Your task to perform on an android device: toggle show notifications on the lock screen Image 0: 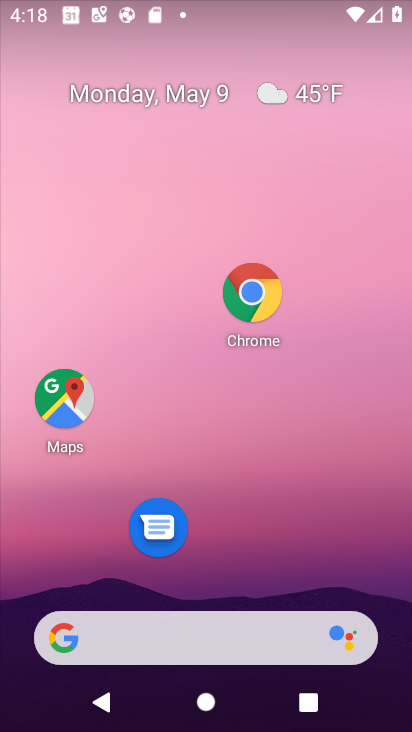
Step 0: click (297, 151)
Your task to perform on an android device: toggle show notifications on the lock screen Image 1: 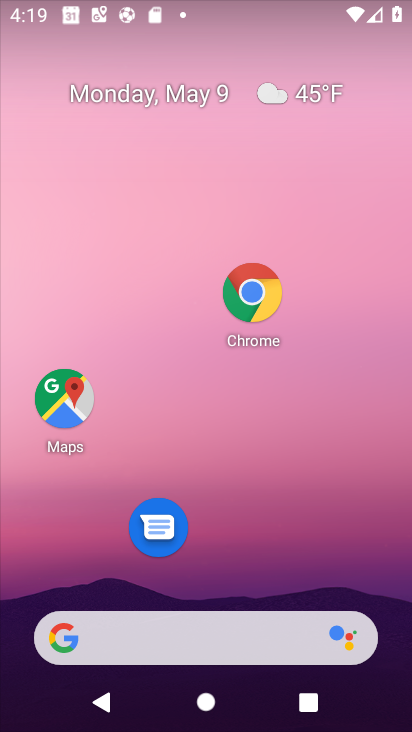
Step 1: drag from (216, 520) to (235, 165)
Your task to perform on an android device: toggle show notifications on the lock screen Image 2: 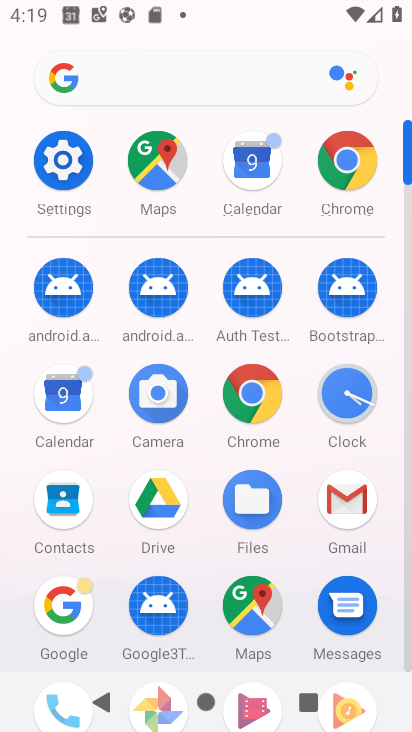
Step 2: click (60, 157)
Your task to perform on an android device: toggle show notifications on the lock screen Image 3: 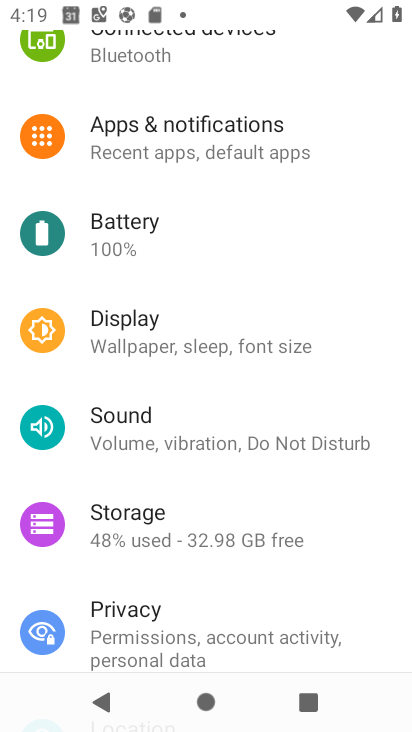
Step 3: click (226, 136)
Your task to perform on an android device: toggle show notifications on the lock screen Image 4: 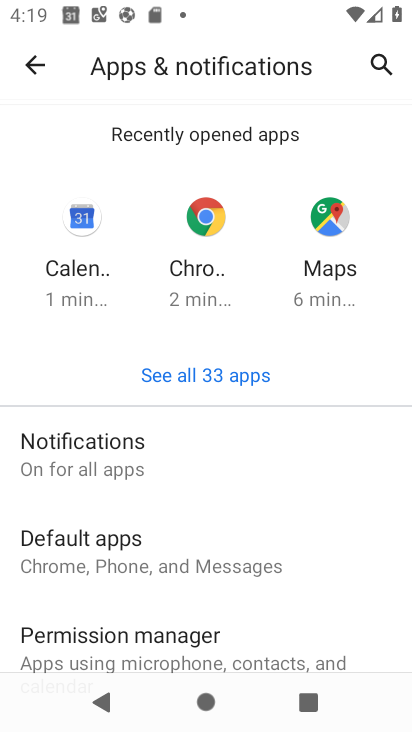
Step 4: click (219, 444)
Your task to perform on an android device: toggle show notifications on the lock screen Image 5: 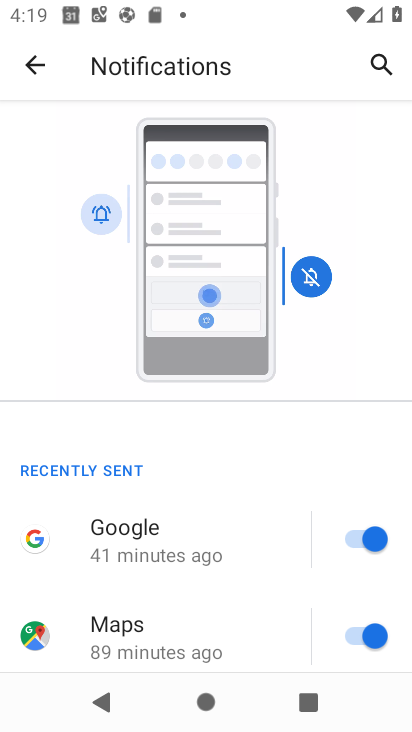
Step 5: click (213, 275)
Your task to perform on an android device: toggle show notifications on the lock screen Image 6: 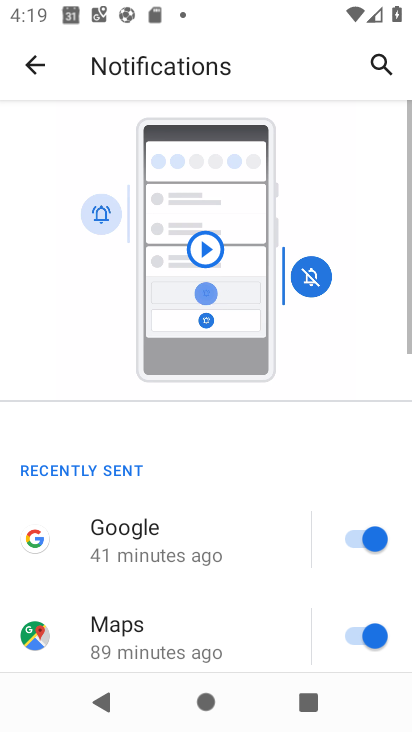
Step 6: drag from (184, 564) to (218, 289)
Your task to perform on an android device: toggle show notifications on the lock screen Image 7: 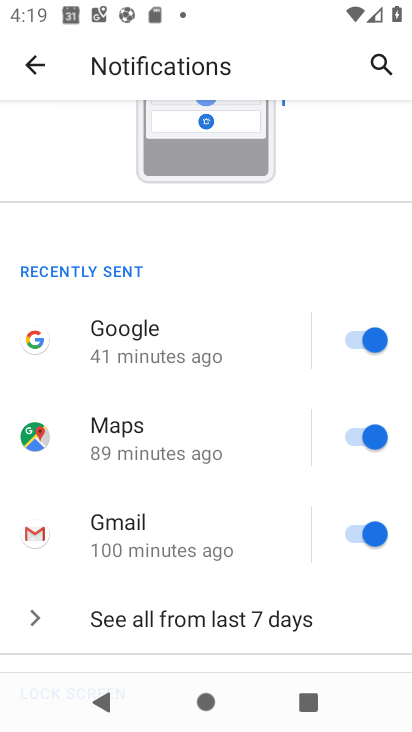
Step 7: drag from (179, 623) to (209, 396)
Your task to perform on an android device: toggle show notifications on the lock screen Image 8: 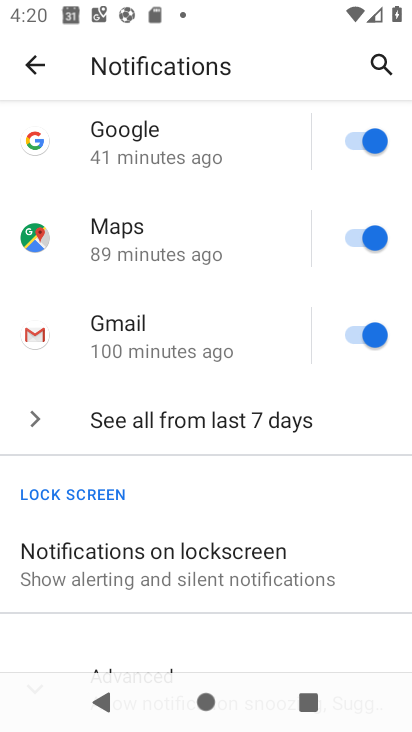
Step 8: click (205, 572)
Your task to perform on an android device: toggle show notifications on the lock screen Image 9: 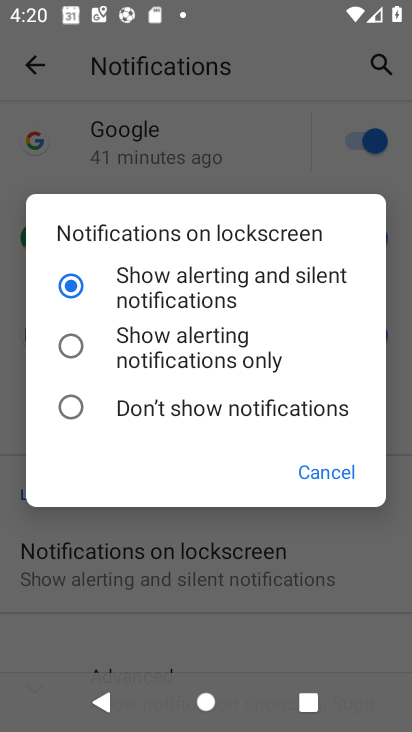
Step 9: click (236, 421)
Your task to perform on an android device: toggle show notifications on the lock screen Image 10: 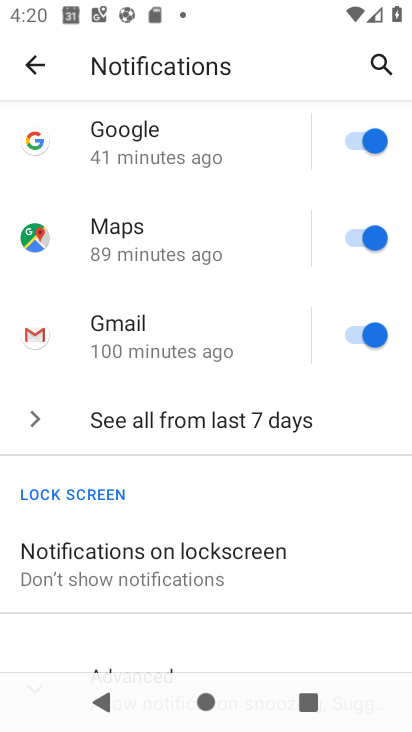
Step 10: task complete